Your task to perform on an android device: Go to ESPN.com Image 0: 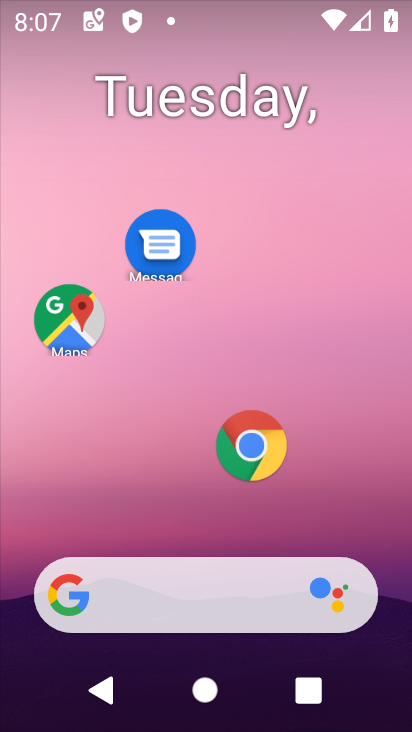
Step 0: click (229, 434)
Your task to perform on an android device: Go to ESPN.com Image 1: 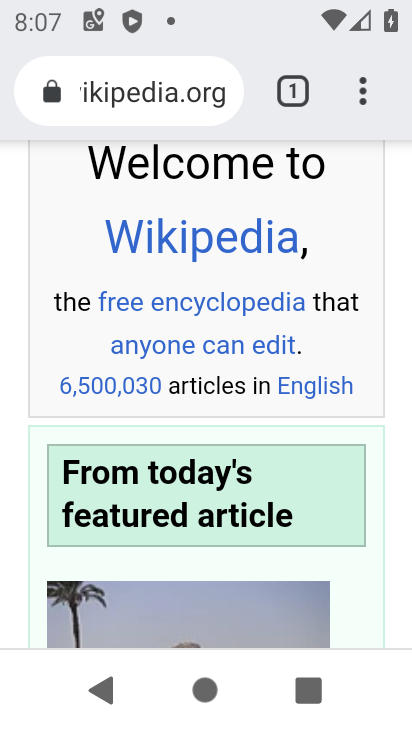
Step 1: click (294, 86)
Your task to perform on an android device: Go to ESPN.com Image 2: 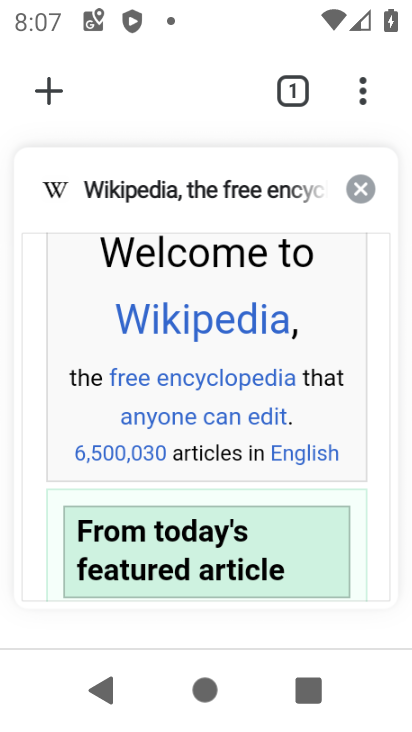
Step 2: click (363, 193)
Your task to perform on an android device: Go to ESPN.com Image 3: 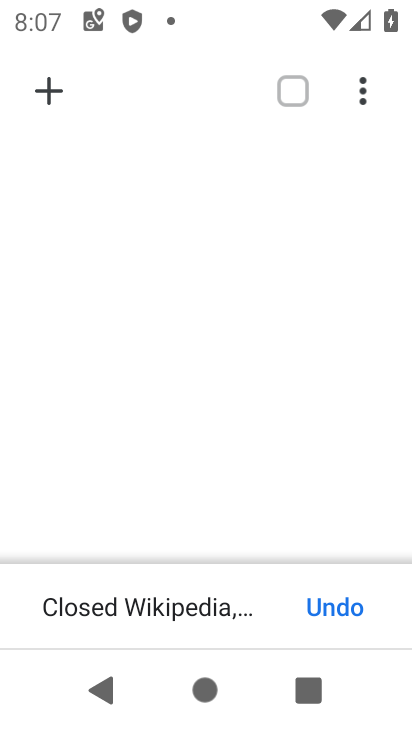
Step 3: click (45, 86)
Your task to perform on an android device: Go to ESPN.com Image 4: 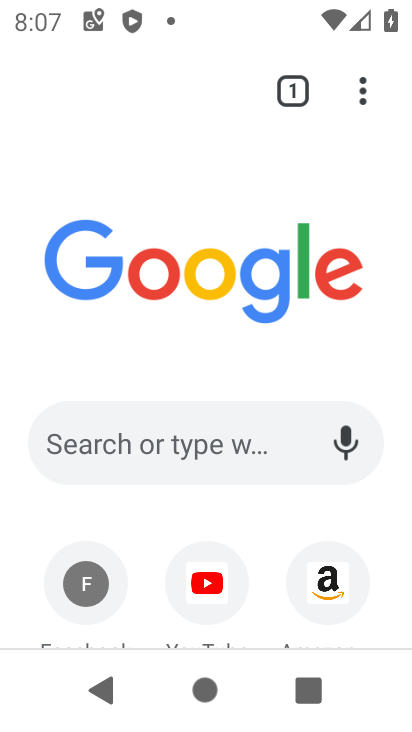
Step 4: drag from (189, 620) to (178, 340)
Your task to perform on an android device: Go to ESPN.com Image 5: 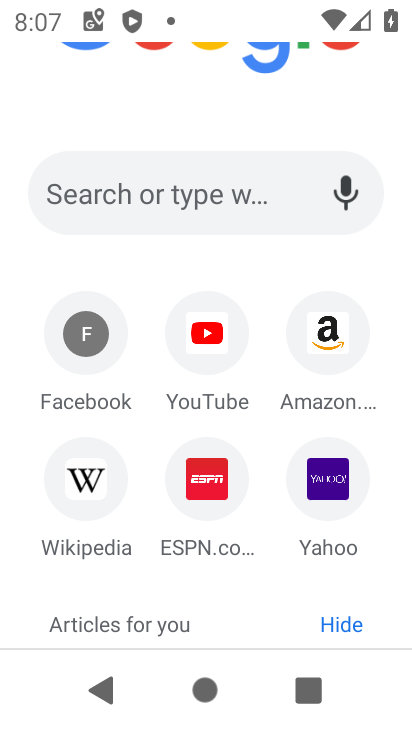
Step 5: click (205, 506)
Your task to perform on an android device: Go to ESPN.com Image 6: 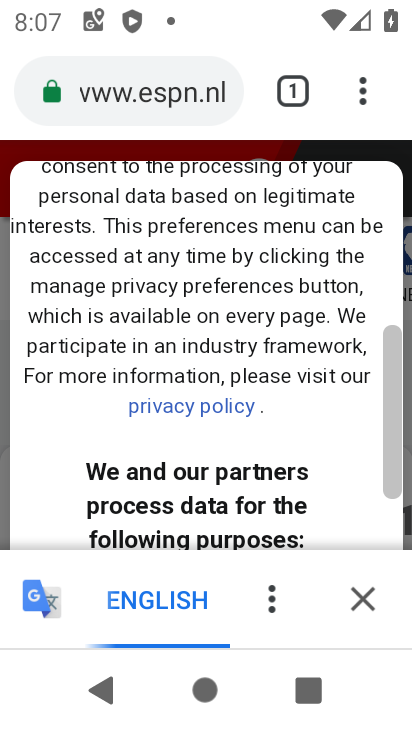
Step 6: task complete